Your task to perform on an android device: check android version Image 0: 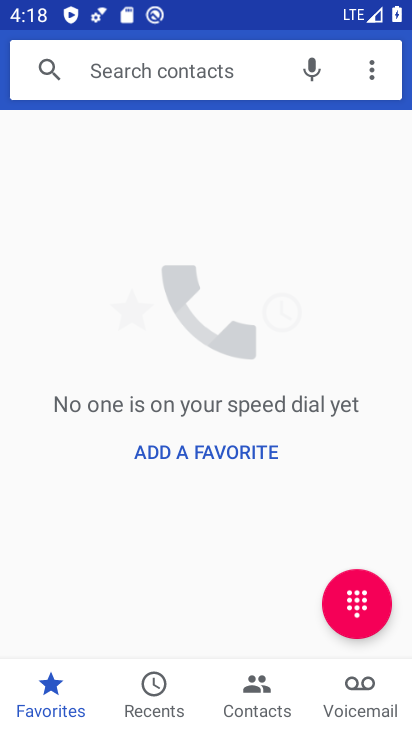
Step 0: press home button
Your task to perform on an android device: check android version Image 1: 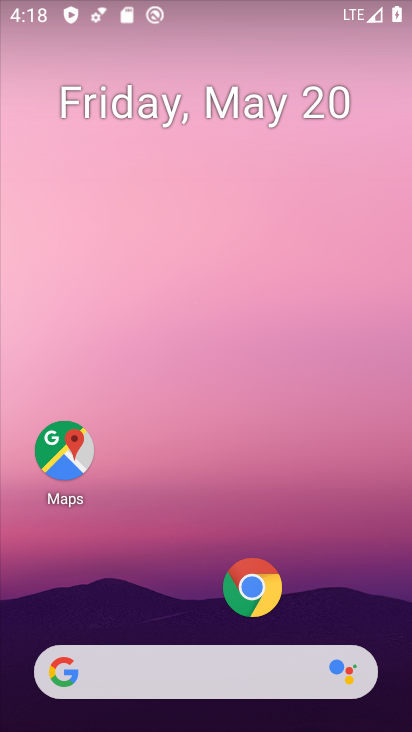
Step 1: drag from (130, 612) to (211, 21)
Your task to perform on an android device: check android version Image 2: 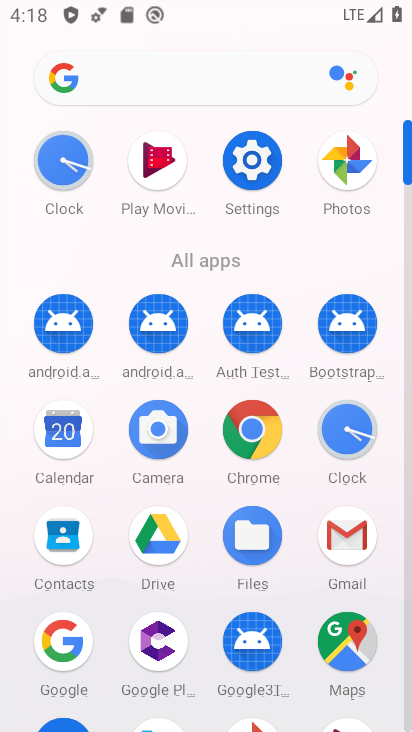
Step 2: click (247, 161)
Your task to perform on an android device: check android version Image 3: 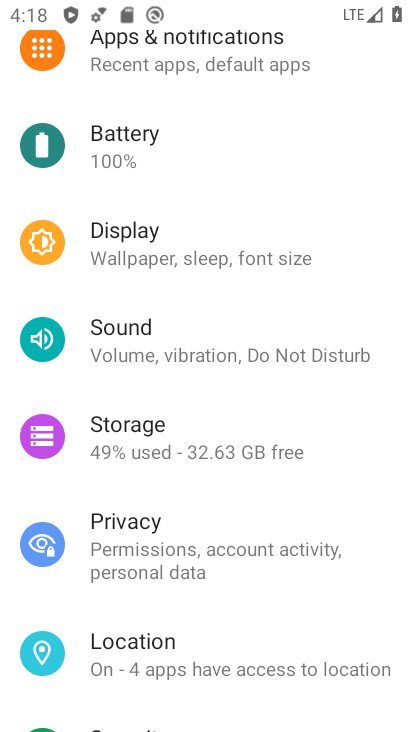
Step 3: task complete